Your task to perform on an android device: find which apps use the phone's location Image 0: 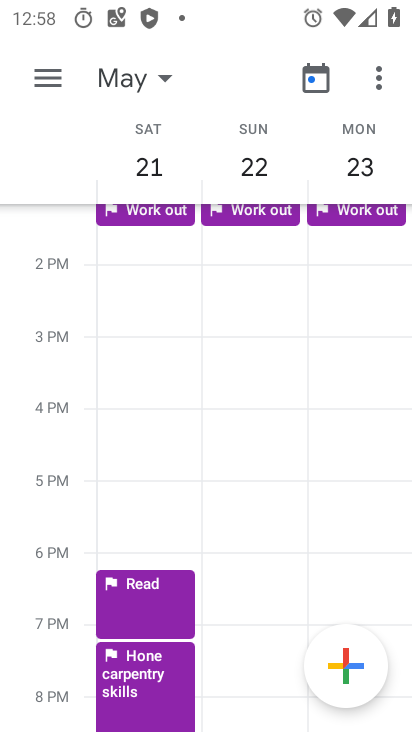
Step 0: click (256, 562)
Your task to perform on an android device: find which apps use the phone's location Image 1: 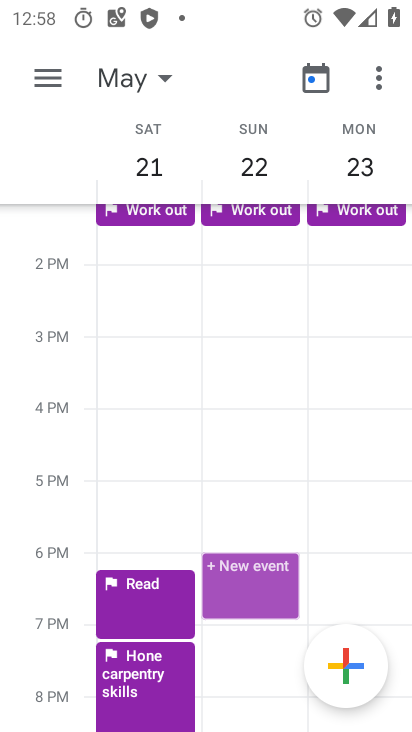
Step 1: press home button
Your task to perform on an android device: find which apps use the phone's location Image 2: 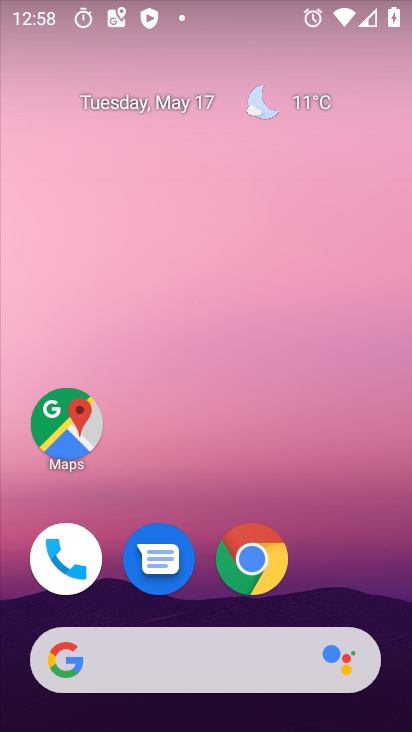
Step 2: drag from (338, 454) to (312, 70)
Your task to perform on an android device: find which apps use the phone's location Image 3: 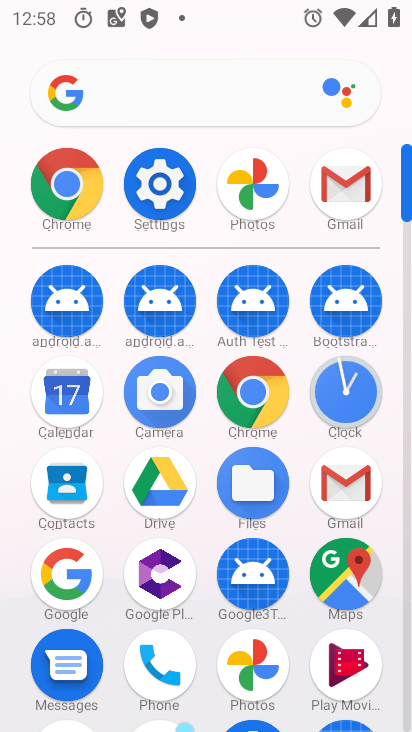
Step 3: click (159, 175)
Your task to perform on an android device: find which apps use the phone's location Image 4: 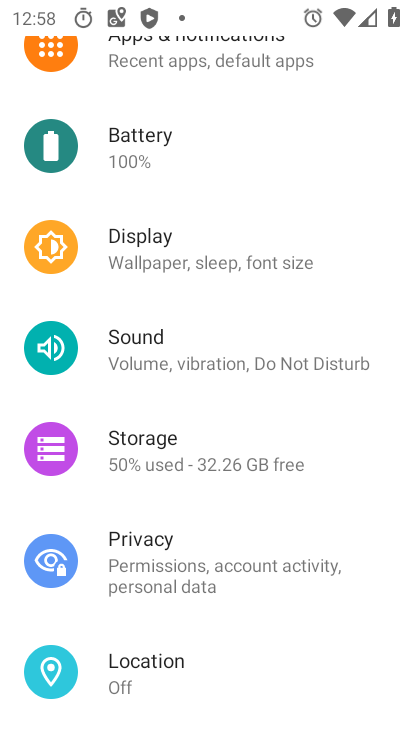
Step 4: click (158, 657)
Your task to perform on an android device: find which apps use the phone's location Image 5: 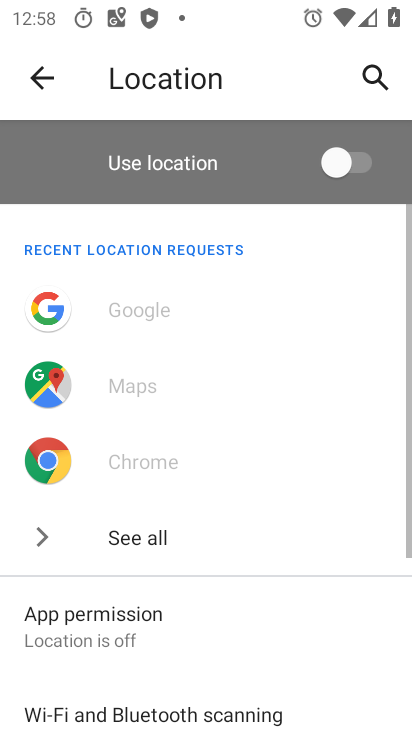
Step 5: drag from (223, 638) to (277, 278)
Your task to perform on an android device: find which apps use the phone's location Image 6: 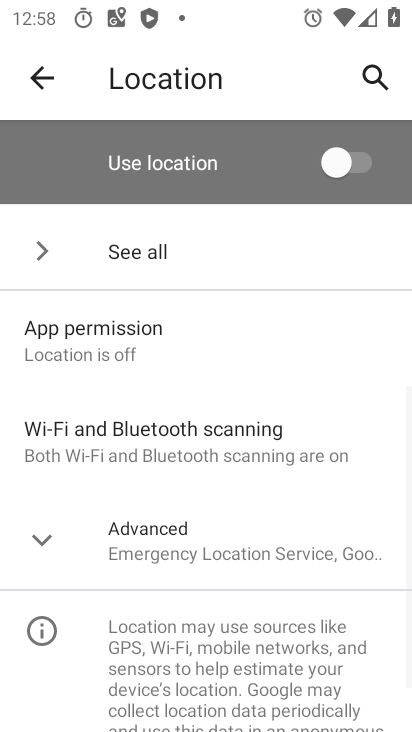
Step 6: click (79, 363)
Your task to perform on an android device: find which apps use the phone's location Image 7: 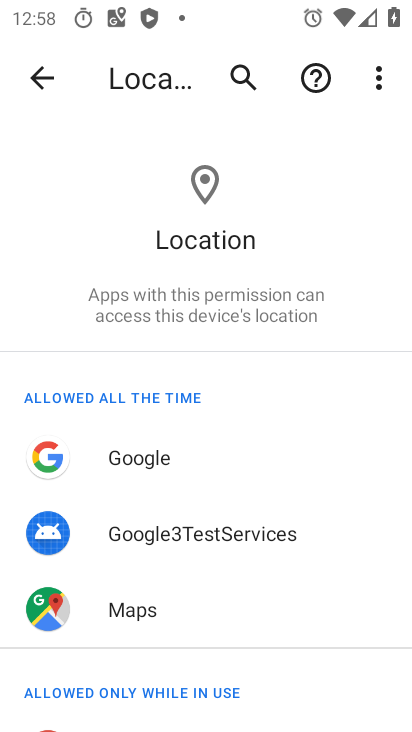
Step 7: task complete